Your task to perform on an android device: turn notification dots on Image 0: 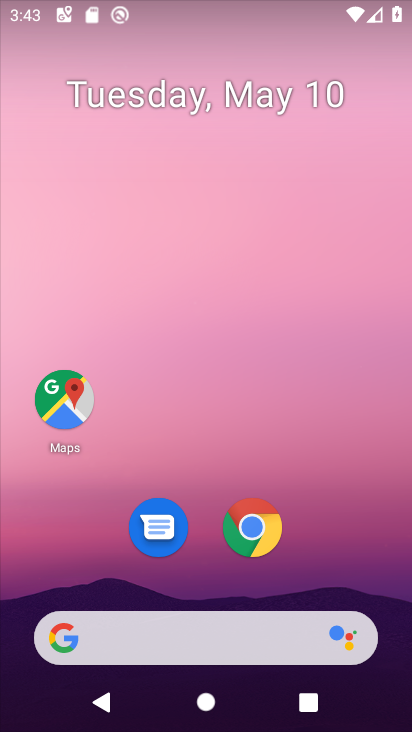
Step 0: drag from (401, 657) to (344, 322)
Your task to perform on an android device: turn notification dots on Image 1: 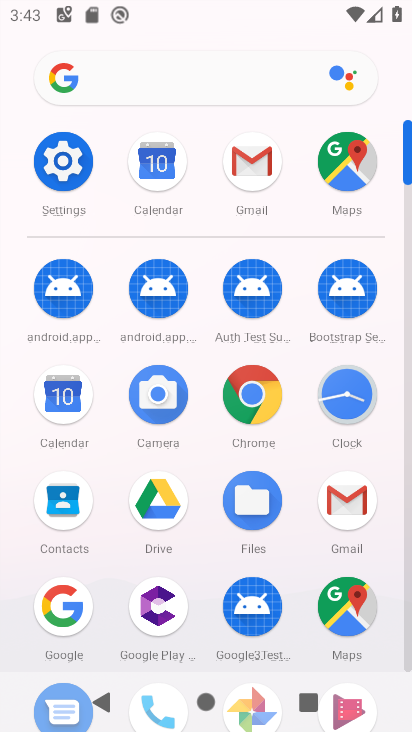
Step 1: click (65, 163)
Your task to perform on an android device: turn notification dots on Image 2: 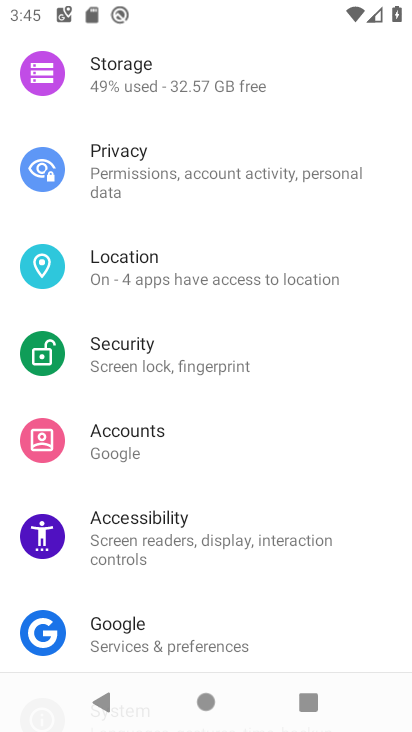
Step 2: drag from (277, 102) to (341, 409)
Your task to perform on an android device: turn notification dots on Image 3: 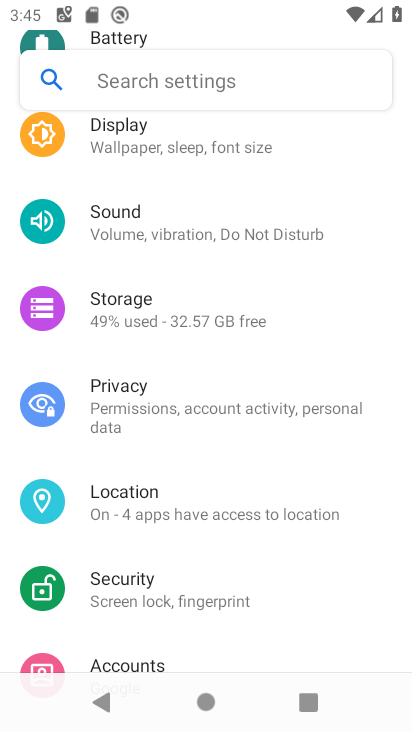
Step 3: click (363, 589)
Your task to perform on an android device: turn notification dots on Image 4: 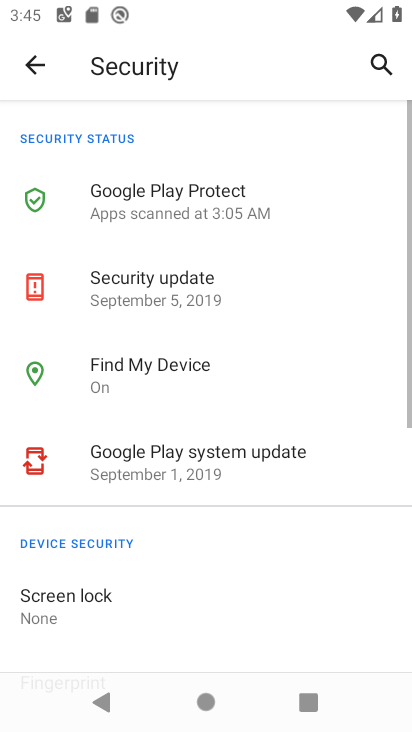
Step 4: drag from (339, 163) to (381, 528)
Your task to perform on an android device: turn notification dots on Image 5: 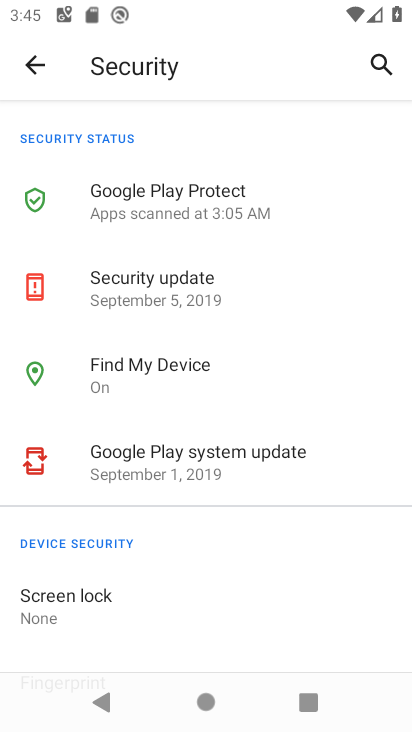
Step 5: drag from (373, 208) to (406, 487)
Your task to perform on an android device: turn notification dots on Image 6: 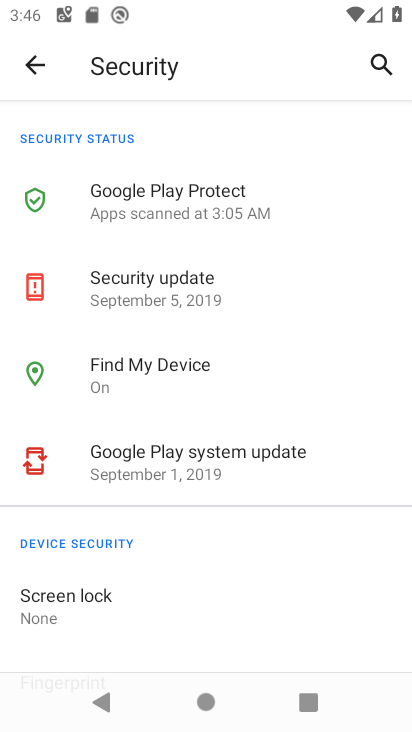
Step 6: click (40, 67)
Your task to perform on an android device: turn notification dots on Image 7: 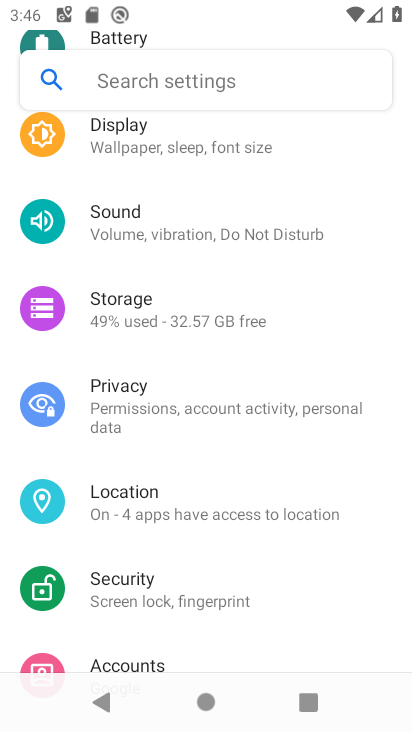
Step 7: drag from (355, 162) to (367, 421)
Your task to perform on an android device: turn notification dots on Image 8: 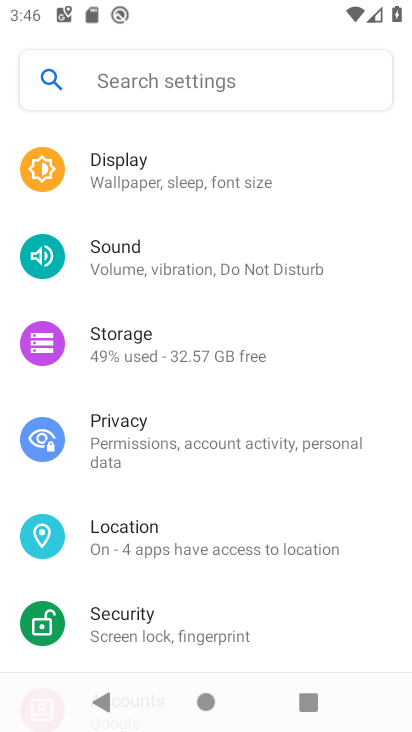
Step 8: drag from (368, 247) to (401, 485)
Your task to perform on an android device: turn notification dots on Image 9: 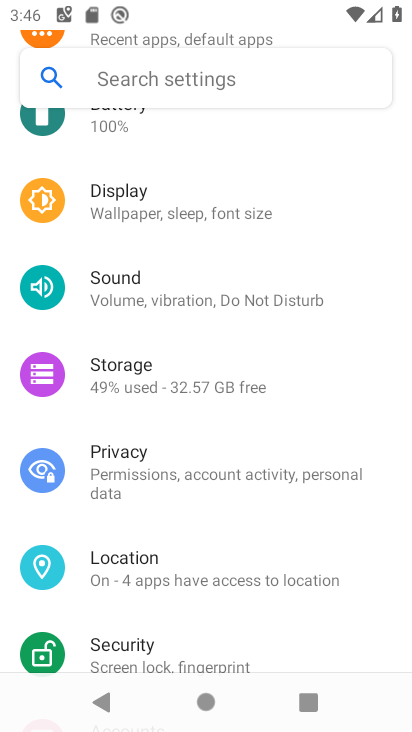
Step 9: drag from (386, 258) to (409, 435)
Your task to perform on an android device: turn notification dots on Image 10: 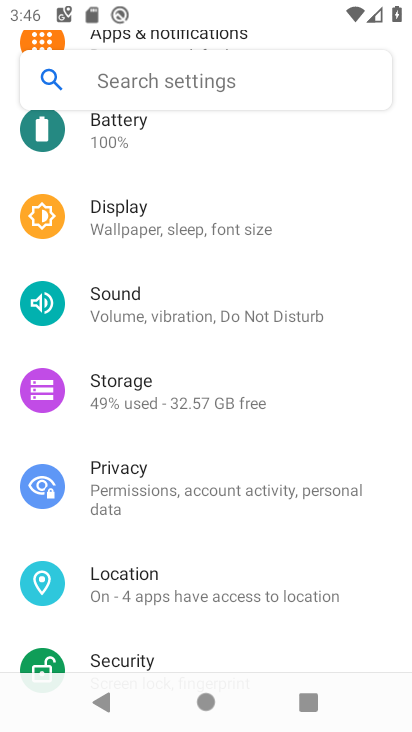
Step 10: drag from (355, 182) to (398, 447)
Your task to perform on an android device: turn notification dots on Image 11: 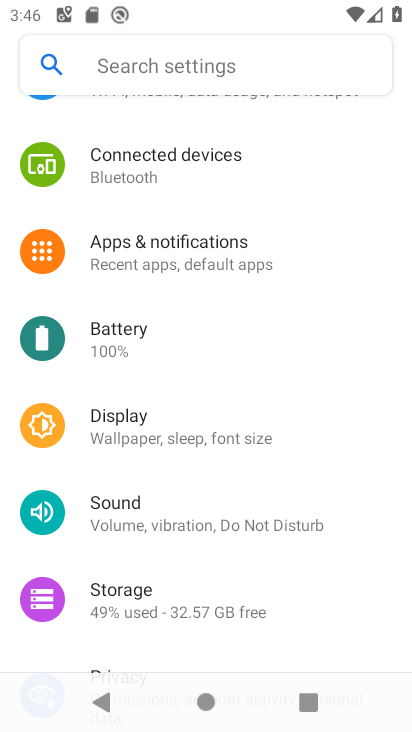
Step 11: click (158, 246)
Your task to perform on an android device: turn notification dots on Image 12: 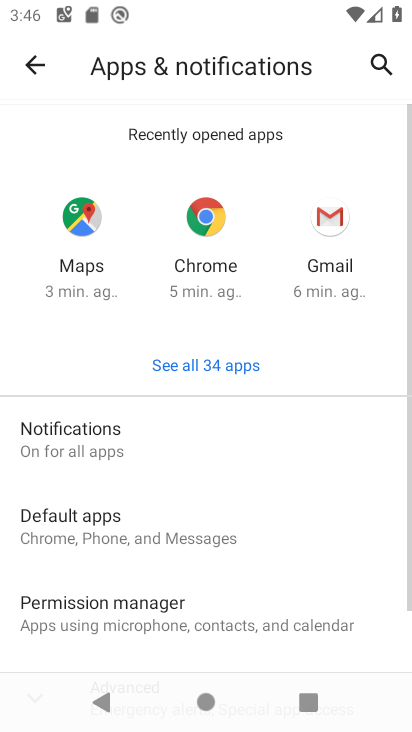
Step 12: click (47, 434)
Your task to perform on an android device: turn notification dots on Image 13: 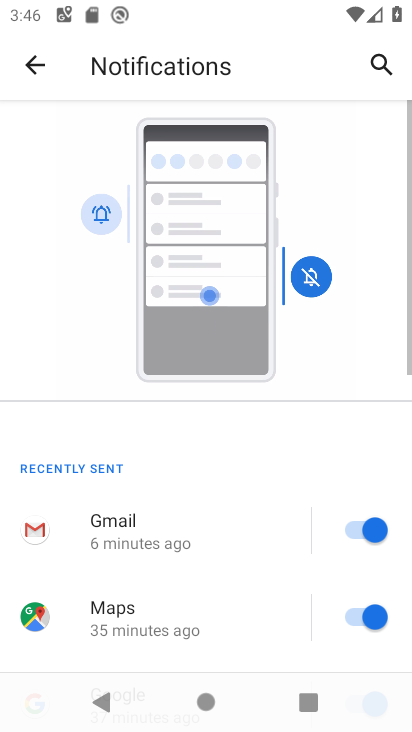
Step 13: drag from (276, 606) to (217, 207)
Your task to perform on an android device: turn notification dots on Image 14: 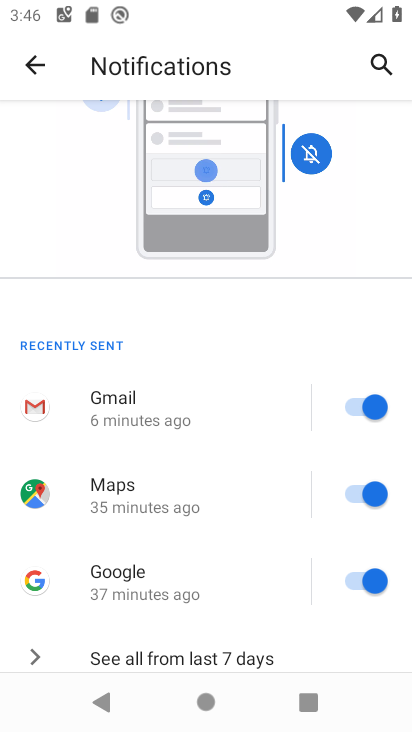
Step 14: drag from (274, 620) to (215, 288)
Your task to perform on an android device: turn notification dots on Image 15: 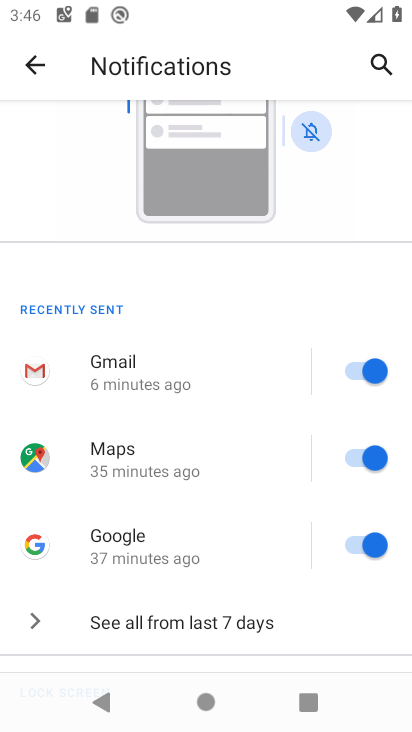
Step 15: drag from (230, 442) to (220, 342)
Your task to perform on an android device: turn notification dots on Image 16: 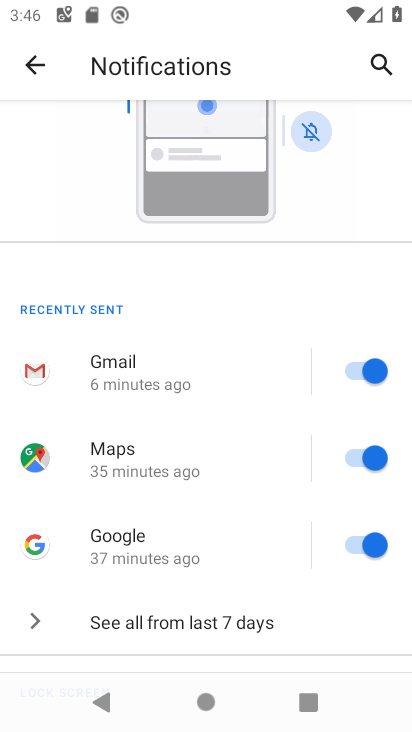
Step 16: click (252, 406)
Your task to perform on an android device: turn notification dots on Image 17: 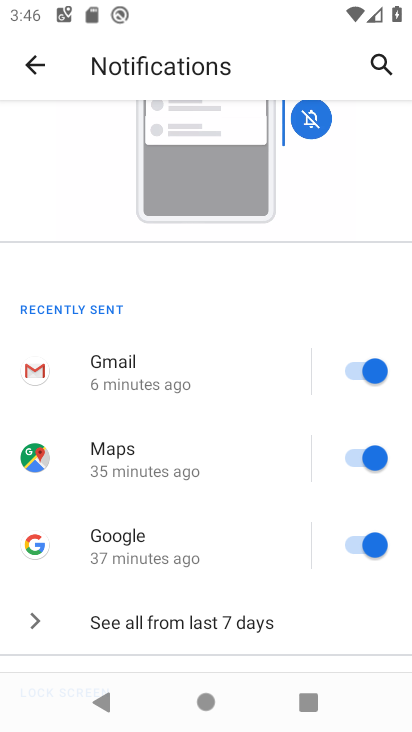
Step 17: drag from (260, 547) to (264, 269)
Your task to perform on an android device: turn notification dots on Image 18: 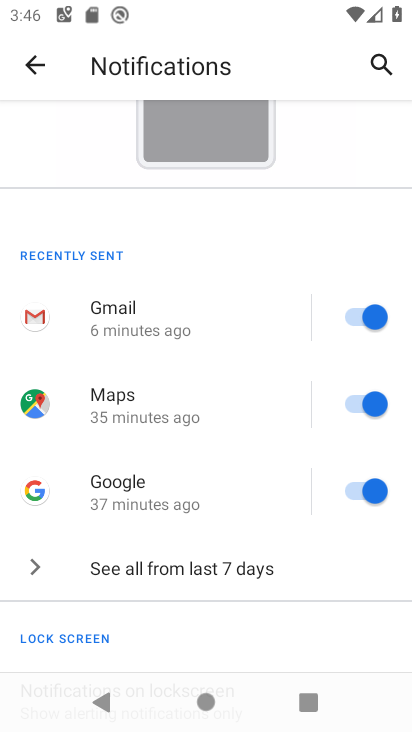
Step 18: drag from (216, 621) to (213, 401)
Your task to perform on an android device: turn notification dots on Image 19: 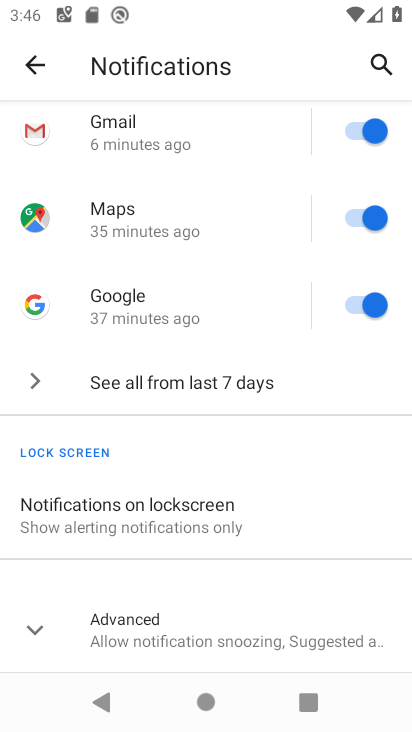
Step 19: drag from (237, 545) to (231, 317)
Your task to perform on an android device: turn notification dots on Image 20: 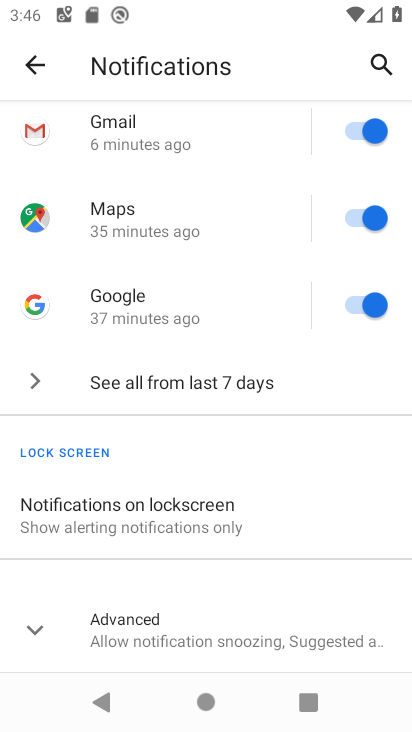
Step 20: click (30, 635)
Your task to perform on an android device: turn notification dots on Image 21: 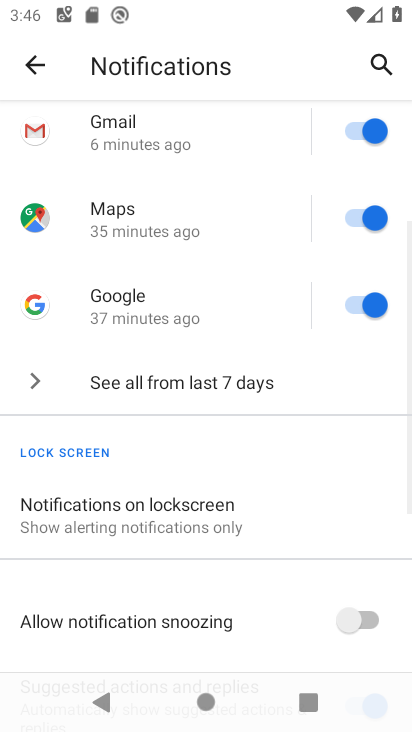
Step 21: task complete